Your task to perform on an android device: Go to ESPN.com Image 0: 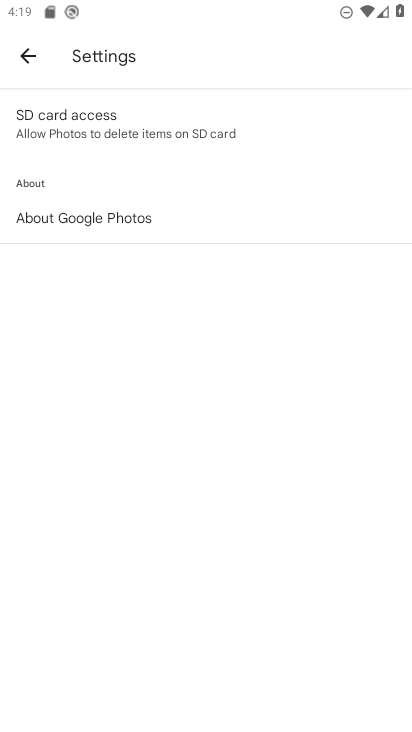
Step 0: press home button
Your task to perform on an android device: Go to ESPN.com Image 1: 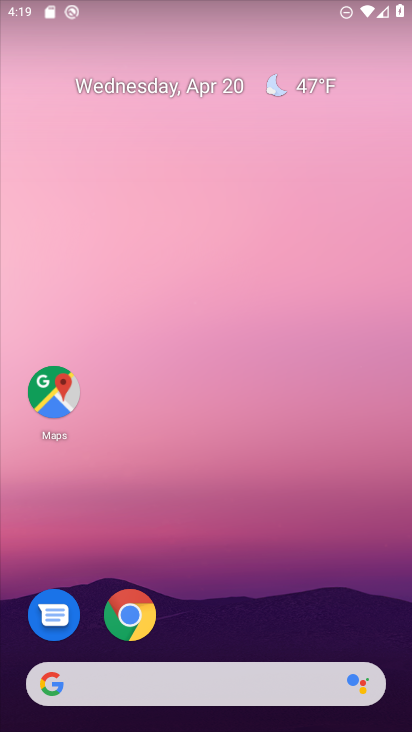
Step 1: click (137, 616)
Your task to perform on an android device: Go to ESPN.com Image 2: 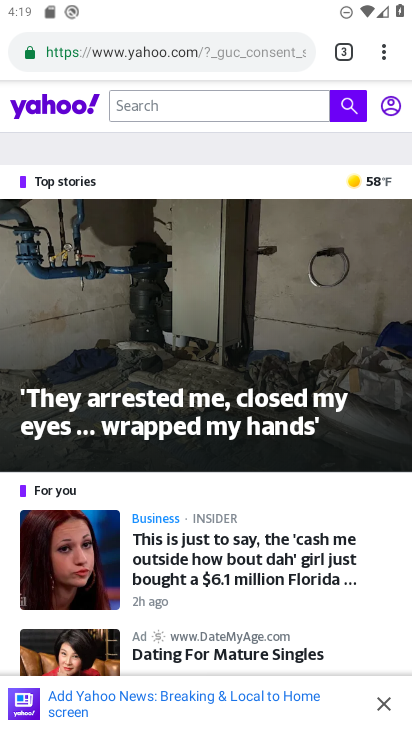
Step 2: click (346, 57)
Your task to perform on an android device: Go to ESPN.com Image 3: 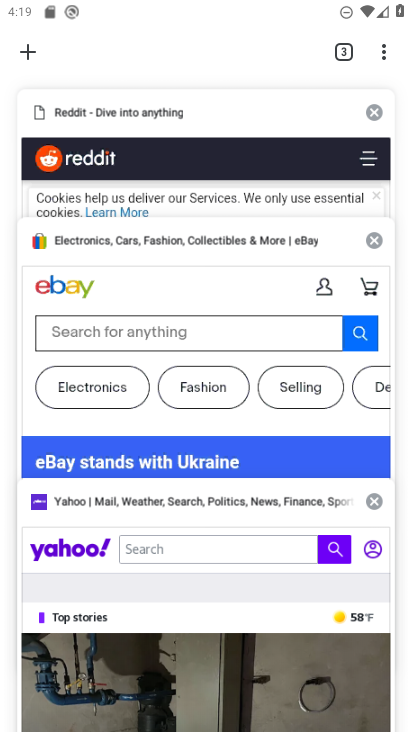
Step 3: click (29, 58)
Your task to perform on an android device: Go to ESPN.com Image 4: 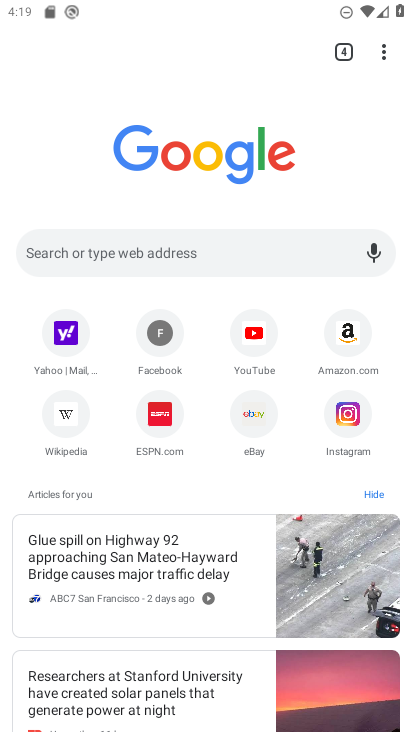
Step 4: click (165, 415)
Your task to perform on an android device: Go to ESPN.com Image 5: 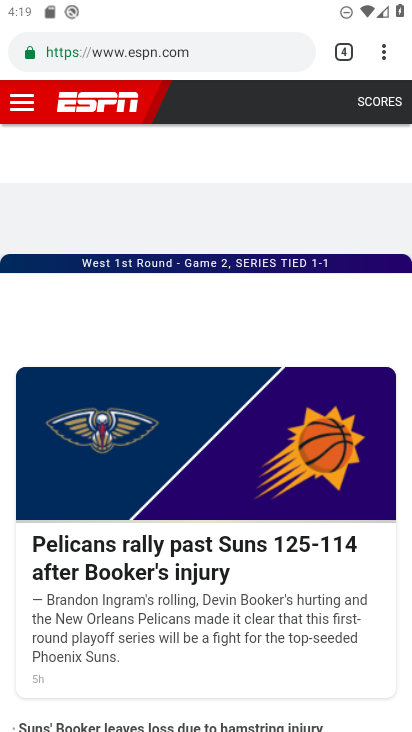
Step 5: task complete